Your task to perform on an android device: What's the weather going to be tomorrow? Image 0: 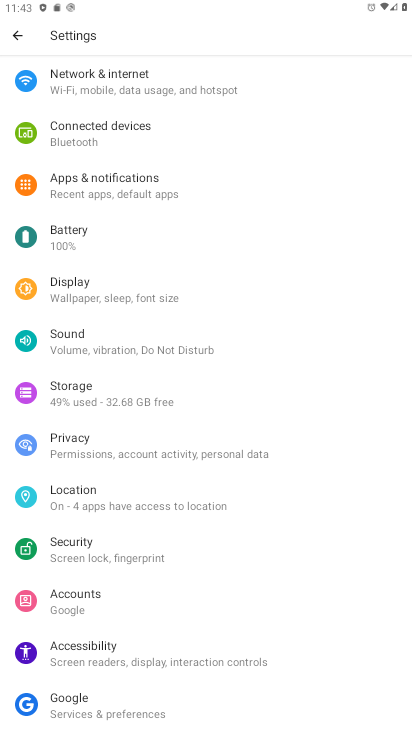
Step 0: press home button
Your task to perform on an android device: What's the weather going to be tomorrow? Image 1: 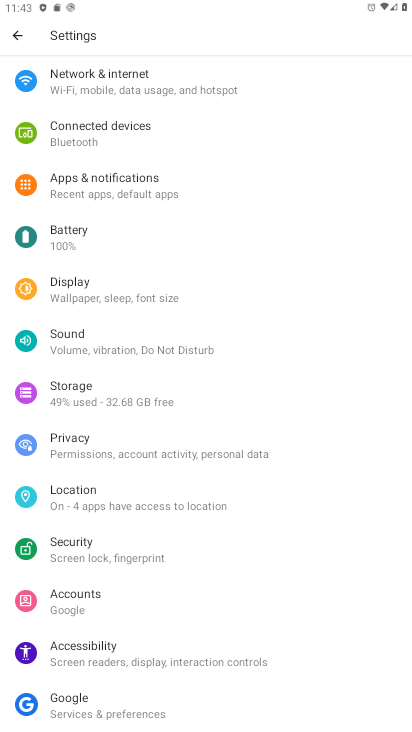
Step 1: drag from (217, 386) to (277, 12)
Your task to perform on an android device: What's the weather going to be tomorrow? Image 2: 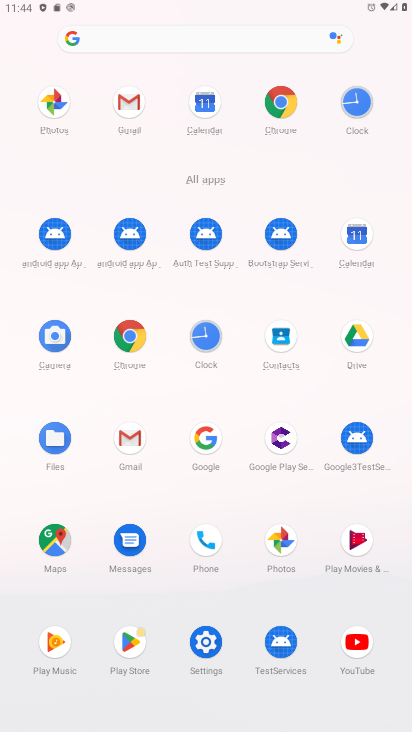
Step 2: click (164, 43)
Your task to perform on an android device: What's the weather going to be tomorrow? Image 3: 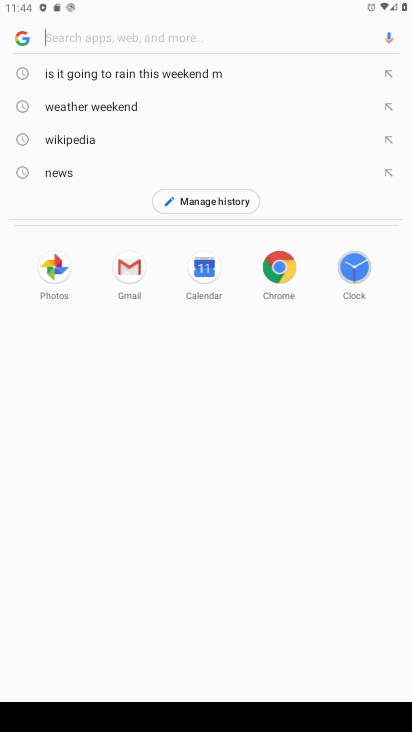
Step 3: click (102, 31)
Your task to perform on an android device: What's the weather going to be tomorrow? Image 4: 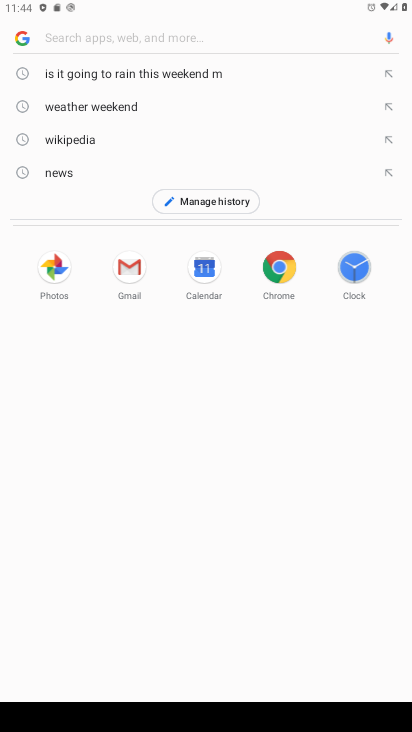
Step 4: type "weather going to be tomorrow"
Your task to perform on an android device: What's the weather going to be tomorrow? Image 5: 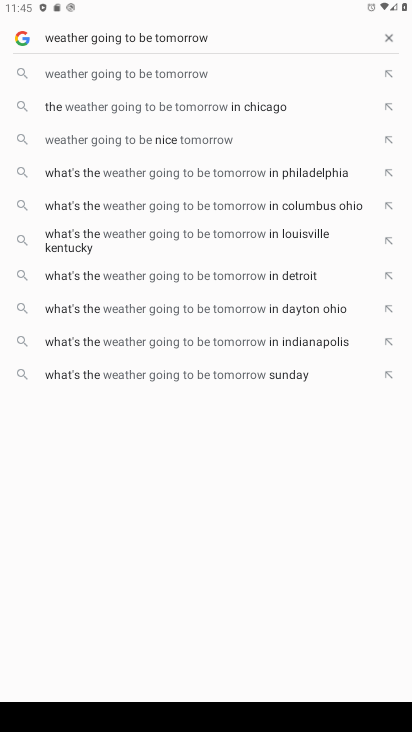
Step 5: click (158, 81)
Your task to perform on an android device: What's the weather going to be tomorrow? Image 6: 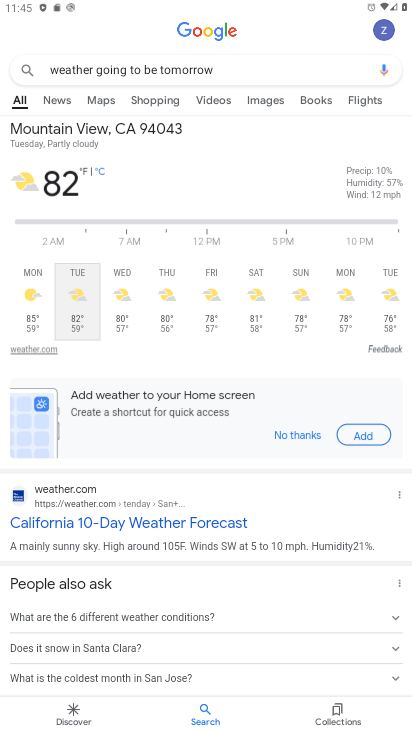
Step 6: task complete